Your task to perform on an android device: open app "eBay: The shopping marketplace" (install if not already installed) and enter user name: "articulated@icloud.com" and password: "excluding" Image 0: 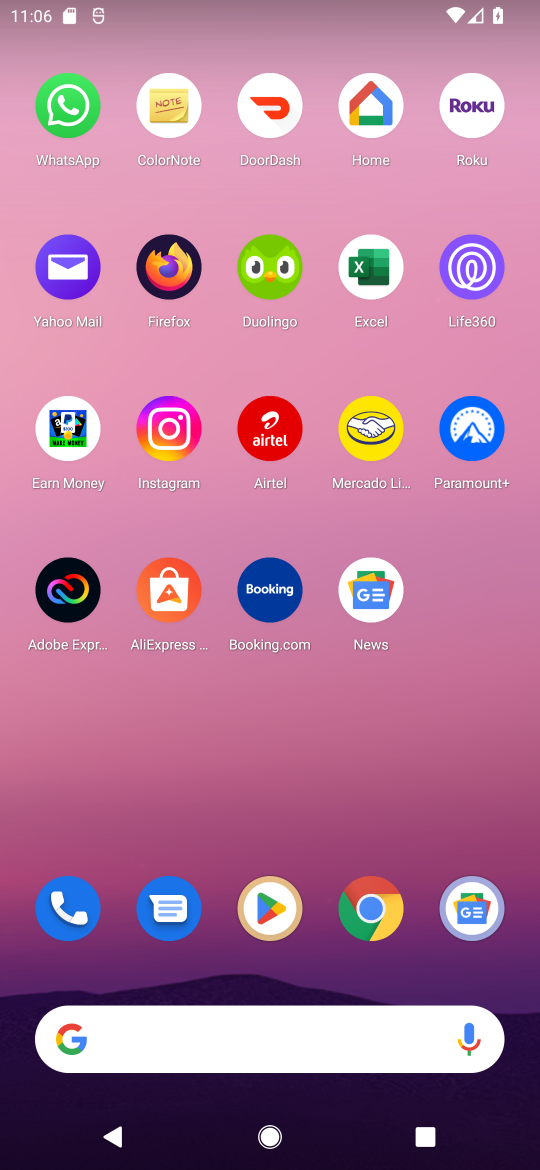
Step 0: click (276, 910)
Your task to perform on an android device: open app "eBay: The shopping marketplace" (install if not already installed) and enter user name: "articulated@icloud.com" and password: "excluding" Image 1: 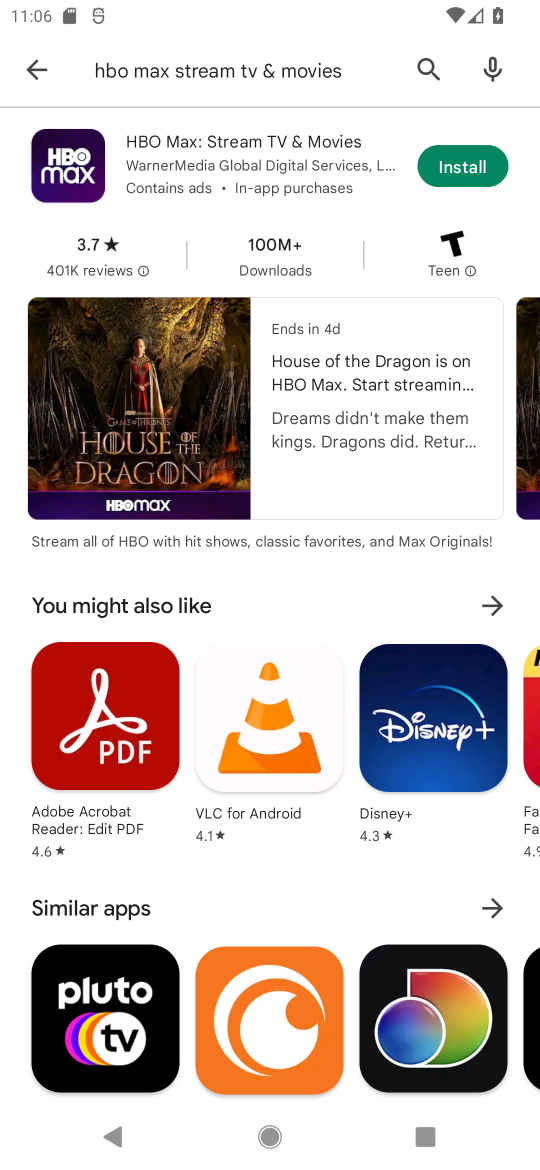
Step 1: click (43, 67)
Your task to perform on an android device: open app "eBay: The shopping marketplace" (install if not already installed) and enter user name: "articulated@icloud.com" and password: "excluding" Image 2: 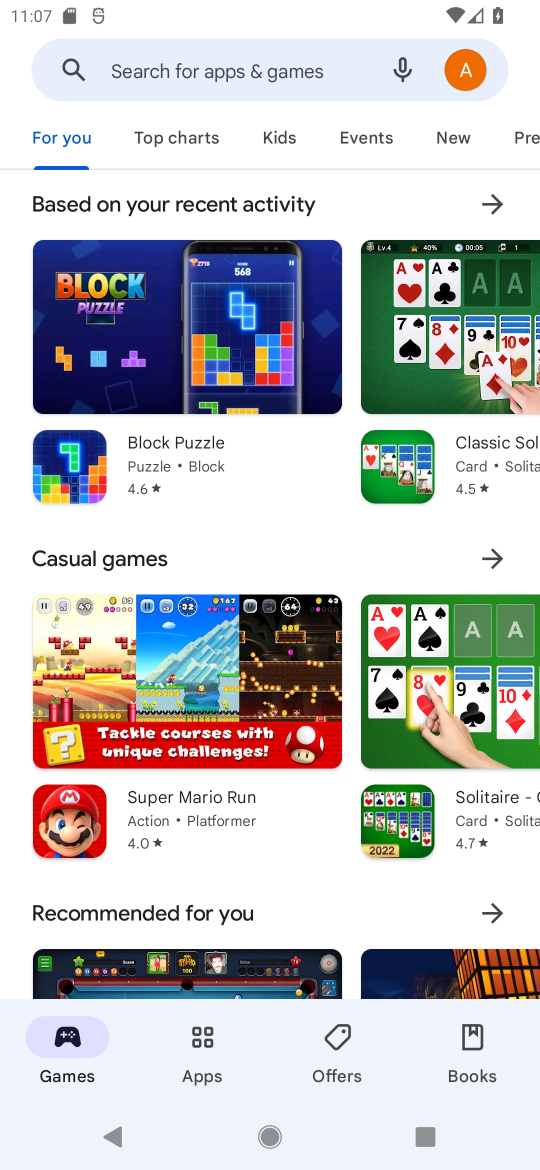
Step 2: click (179, 90)
Your task to perform on an android device: open app "eBay: The shopping marketplace" (install if not already installed) and enter user name: "articulated@icloud.com" and password: "excluding" Image 3: 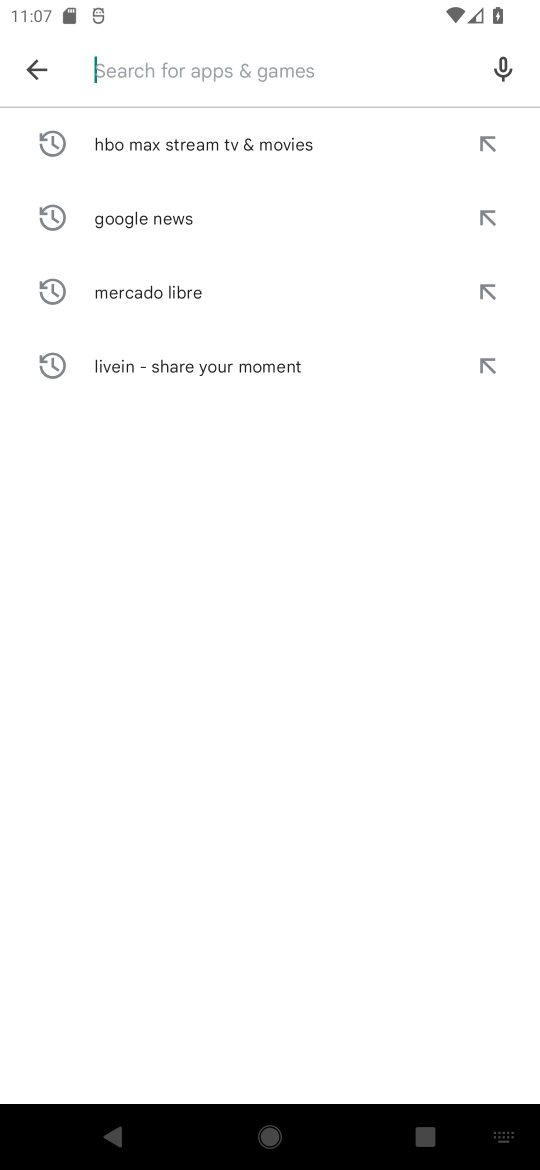
Step 3: type "eBay"
Your task to perform on an android device: open app "eBay: The shopping marketplace" (install if not already installed) and enter user name: "articulated@icloud.com" and password: "excluding" Image 4: 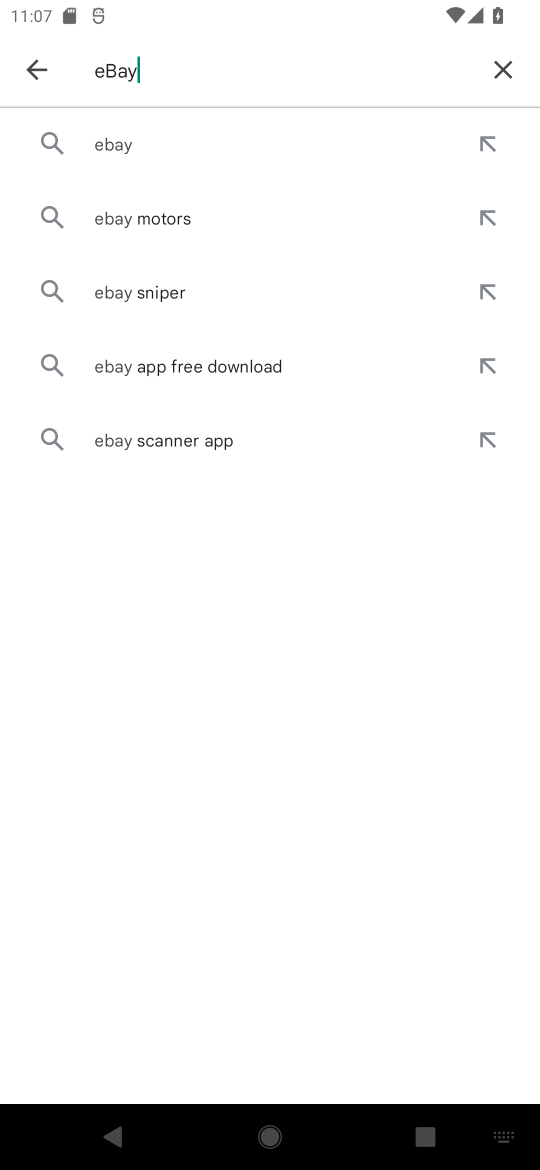
Step 4: click (75, 154)
Your task to perform on an android device: open app "eBay: The shopping marketplace" (install if not already installed) and enter user name: "articulated@icloud.com" and password: "excluding" Image 5: 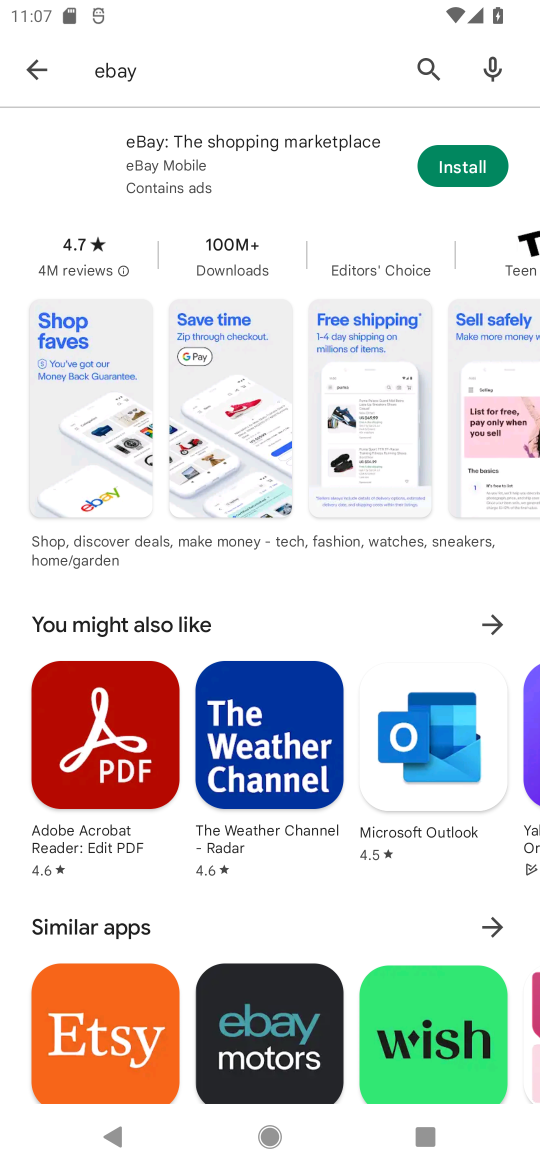
Step 5: click (462, 170)
Your task to perform on an android device: open app "eBay: The shopping marketplace" (install if not already installed) and enter user name: "articulated@icloud.com" and password: "excluding" Image 6: 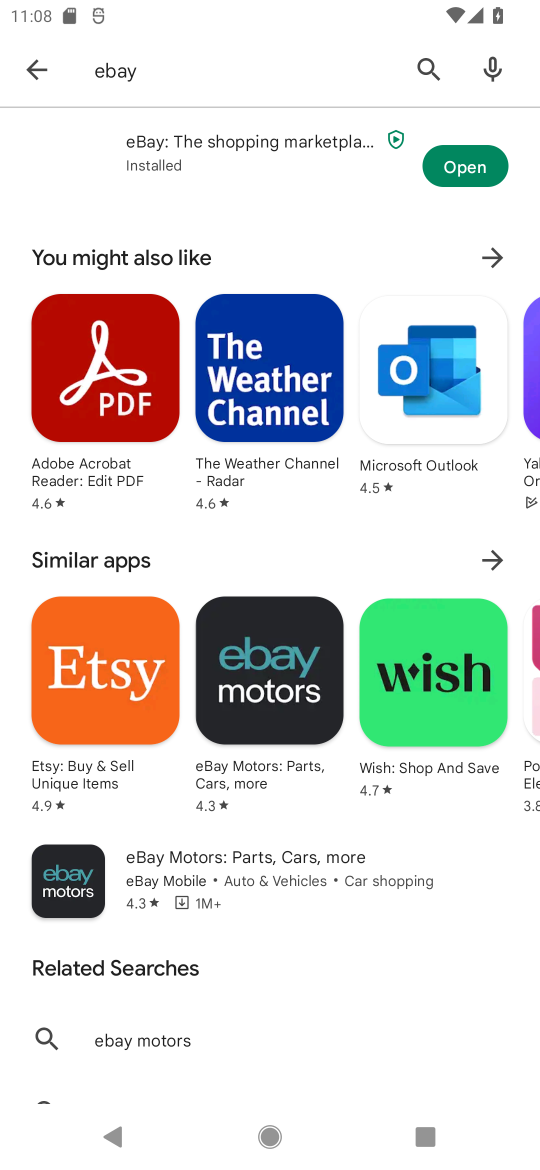
Step 6: click (489, 172)
Your task to perform on an android device: open app "eBay: The shopping marketplace" (install if not already installed) and enter user name: "articulated@icloud.com" and password: "excluding" Image 7: 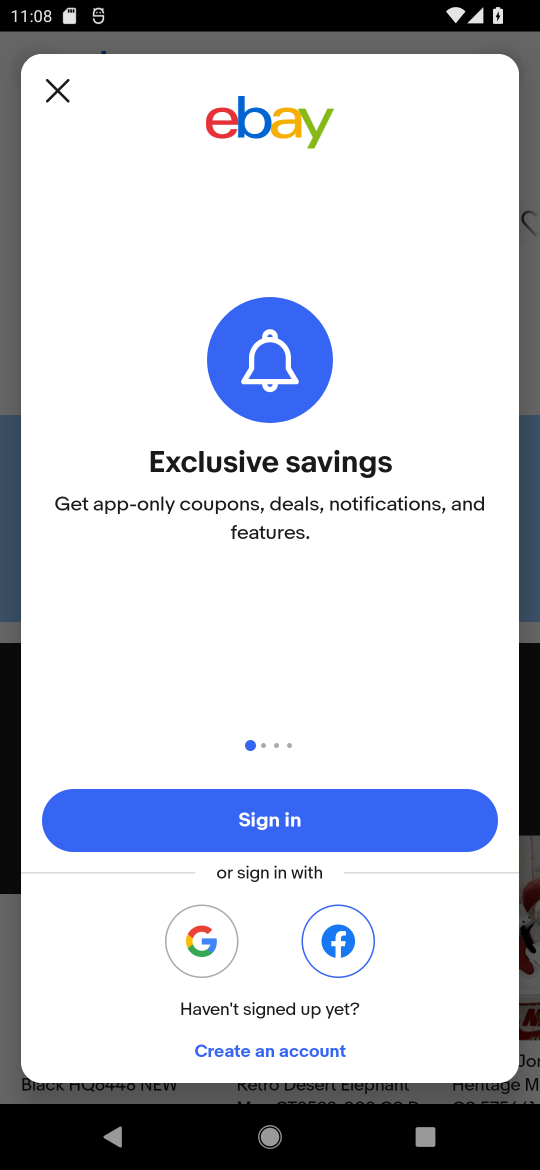
Step 7: task complete